Your task to perform on an android device: Open Google Chrome and open the bookmarks view Image 0: 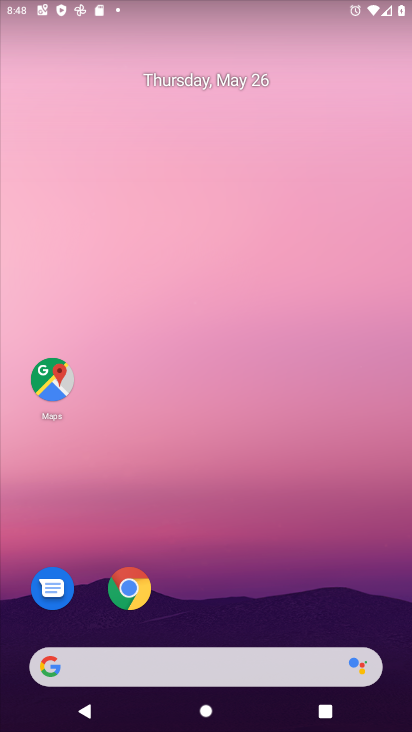
Step 0: drag from (382, 635) to (266, 74)
Your task to perform on an android device: Open Google Chrome and open the bookmarks view Image 1: 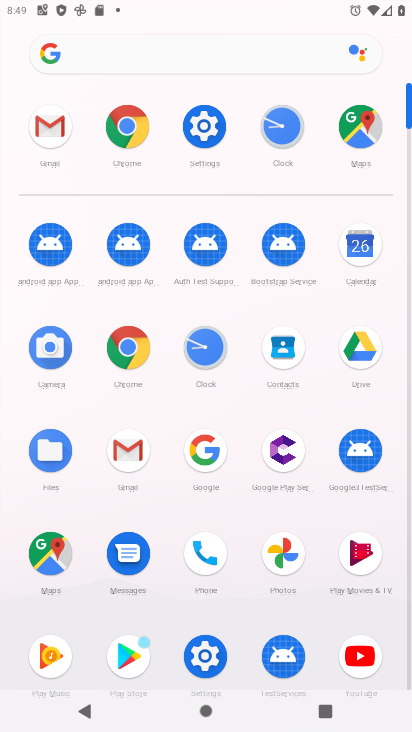
Step 1: click (126, 367)
Your task to perform on an android device: Open Google Chrome and open the bookmarks view Image 2: 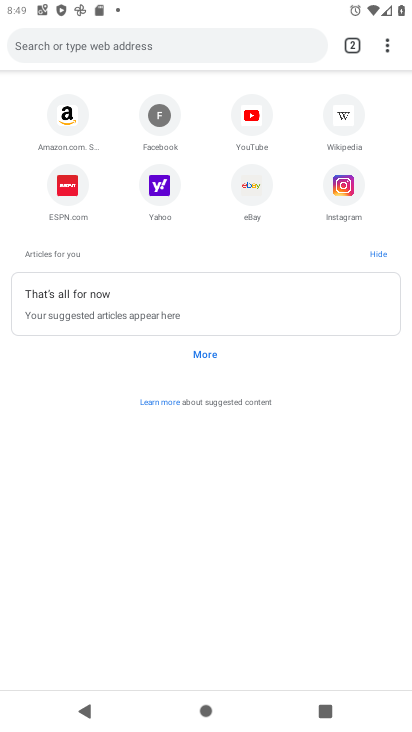
Step 2: click (387, 54)
Your task to perform on an android device: Open Google Chrome and open the bookmarks view Image 3: 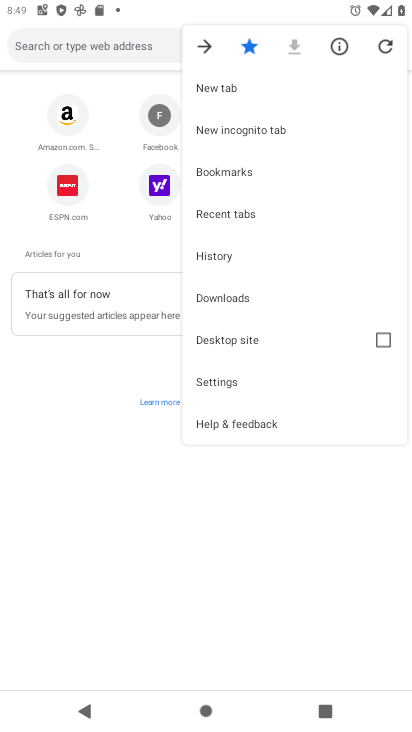
Step 3: click (236, 179)
Your task to perform on an android device: Open Google Chrome and open the bookmarks view Image 4: 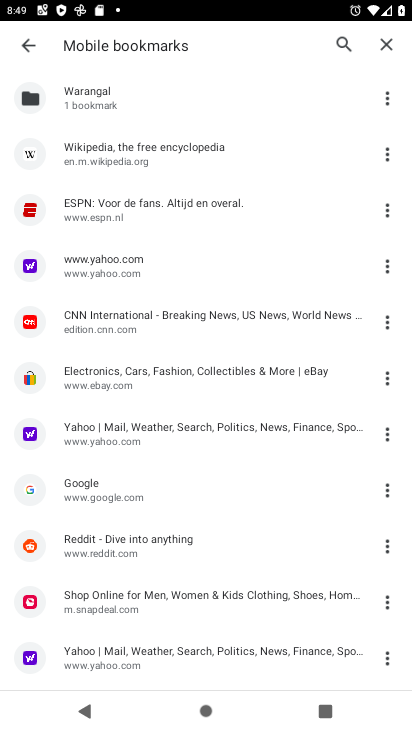
Step 4: task complete